Your task to perform on an android device: Open the phone app and click the voicemail tab. Image 0: 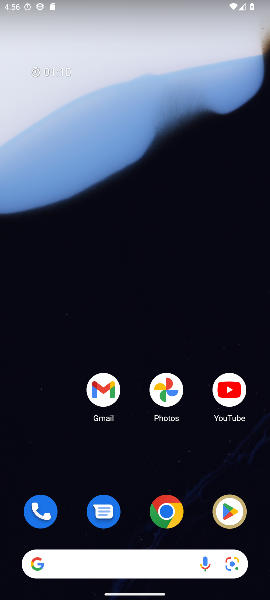
Step 0: drag from (137, 456) to (156, 7)
Your task to perform on an android device: Open the phone app and click the voicemail tab. Image 1: 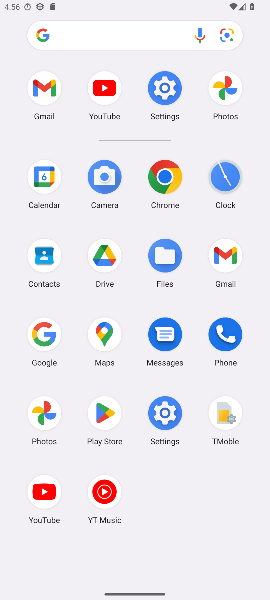
Step 1: click (217, 335)
Your task to perform on an android device: Open the phone app and click the voicemail tab. Image 2: 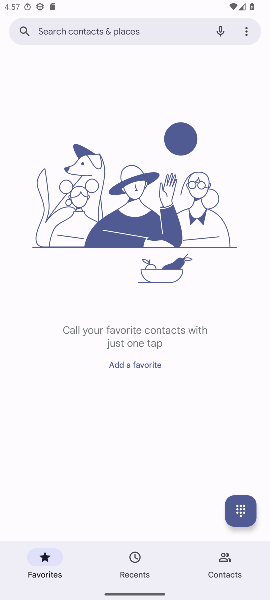
Step 2: click (248, 33)
Your task to perform on an android device: Open the phone app and click the voicemail tab. Image 3: 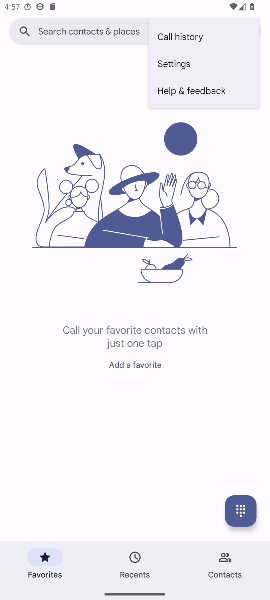
Step 3: click (175, 65)
Your task to perform on an android device: Open the phone app and click the voicemail tab. Image 4: 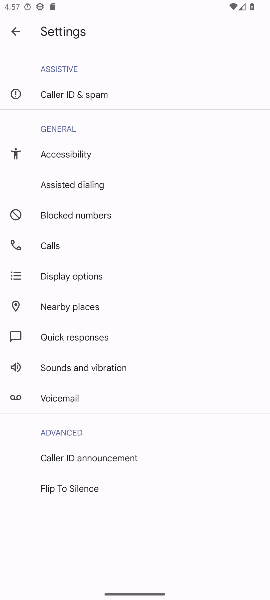
Step 4: click (70, 394)
Your task to perform on an android device: Open the phone app and click the voicemail tab. Image 5: 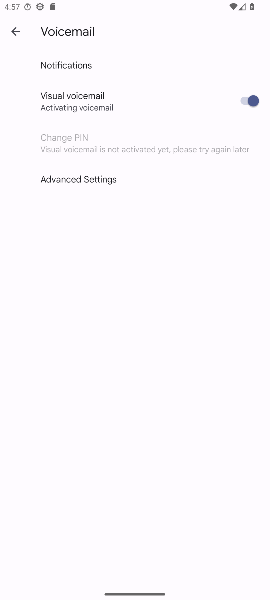
Step 5: task complete